Your task to perform on an android device: toggle priority inbox in the gmail app Image 0: 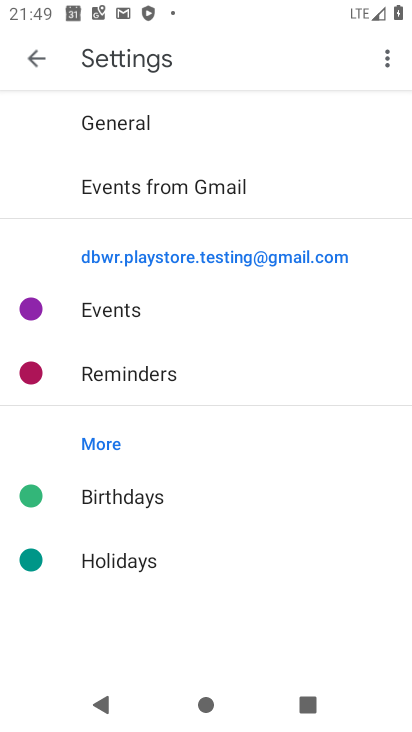
Step 0: press home button
Your task to perform on an android device: toggle priority inbox in the gmail app Image 1: 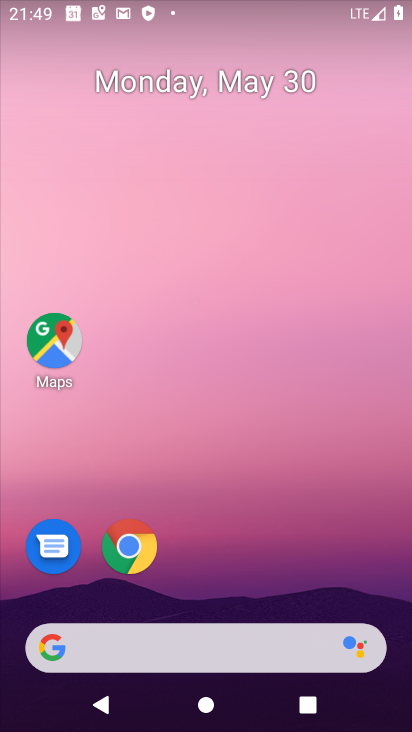
Step 1: drag from (314, 588) to (316, 178)
Your task to perform on an android device: toggle priority inbox in the gmail app Image 2: 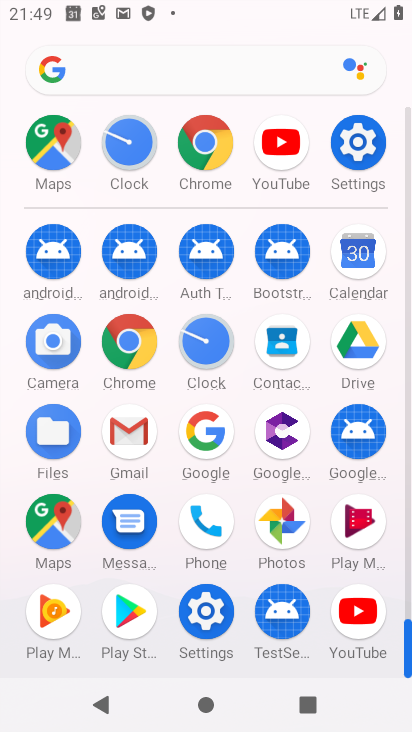
Step 2: click (129, 432)
Your task to perform on an android device: toggle priority inbox in the gmail app Image 3: 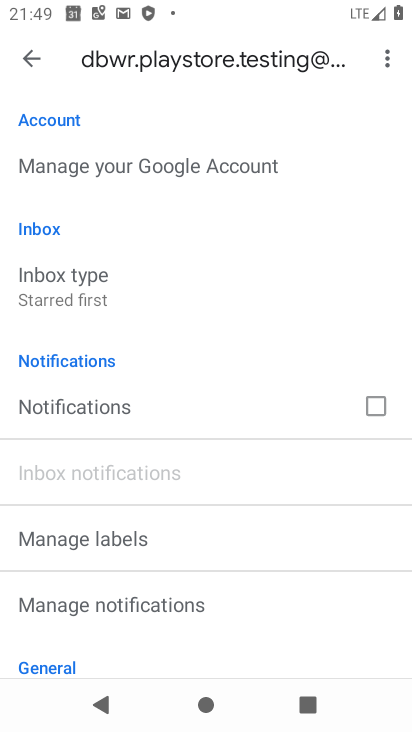
Step 3: click (81, 292)
Your task to perform on an android device: toggle priority inbox in the gmail app Image 4: 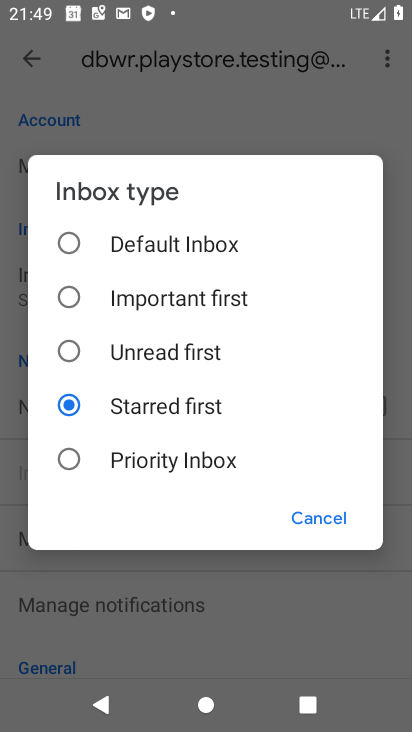
Step 4: click (73, 459)
Your task to perform on an android device: toggle priority inbox in the gmail app Image 5: 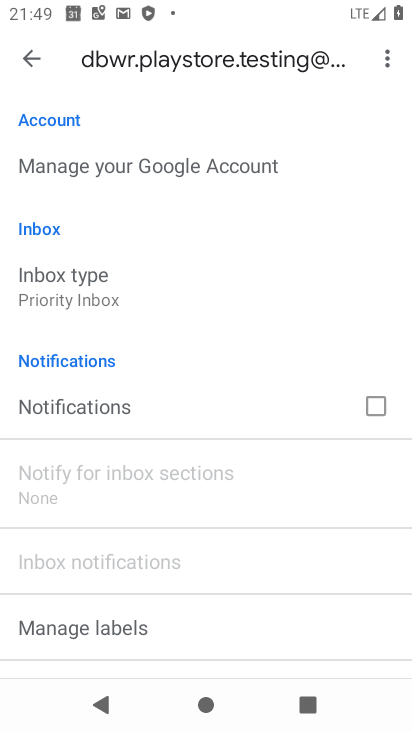
Step 5: click (154, 303)
Your task to perform on an android device: toggle priority inbox in the gmail app Image 6: 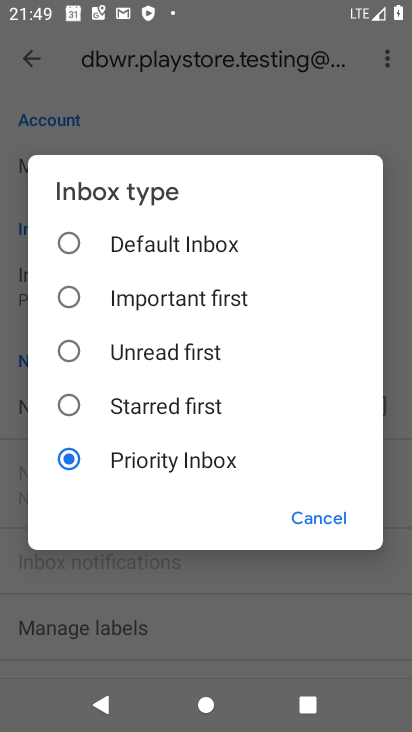
Step 6: task complete